Your task to perform on an android device: Go to sound settings Image 0: 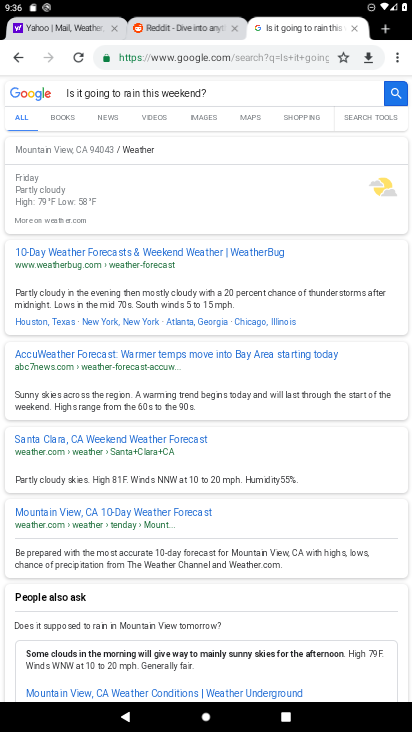
Step 0: press home button
Your task to perform on an android device: Go to sound settings Image 1: 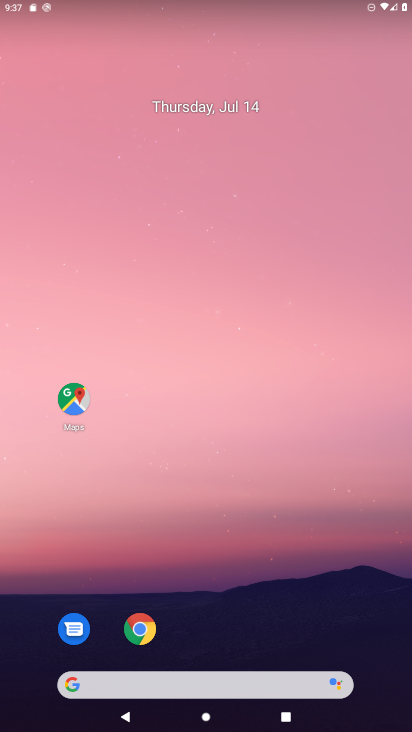
Step 1: drag from (280, 599) to (324, 73)
Your task to perform on an android device: Go to sound settings Image 2: 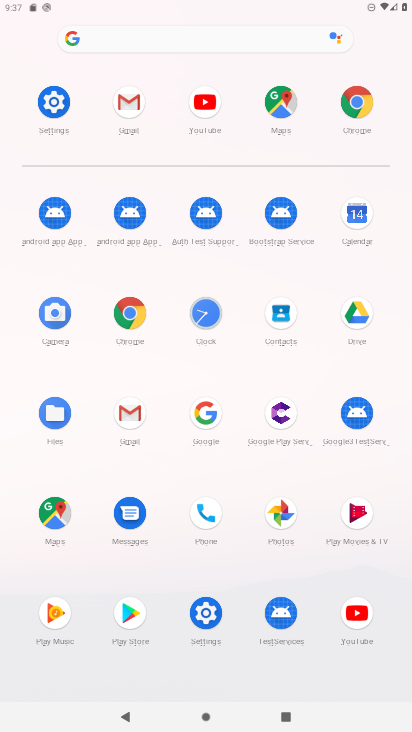
Step 2: click (197, 604)
Your task to perform on an android device: Go to sound settings Image 3: 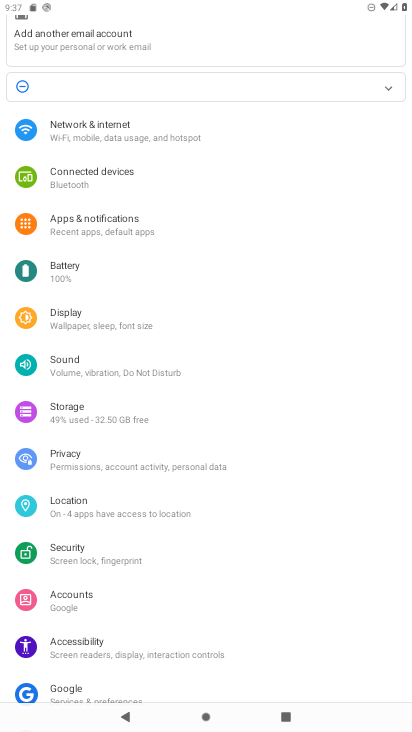
Step 3: click (63, 367)
Your task to perform on an android device: Go to sound settings Image 4: 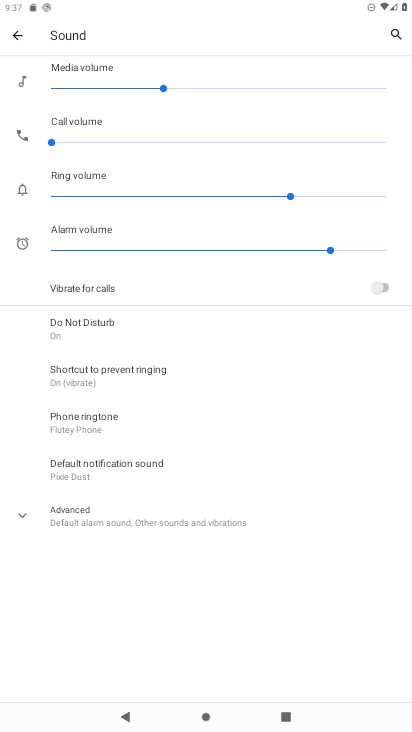
Step 4: task complete